Your task to perform on an android device: read, delete, or share a saved page in the chrome app Image 0: 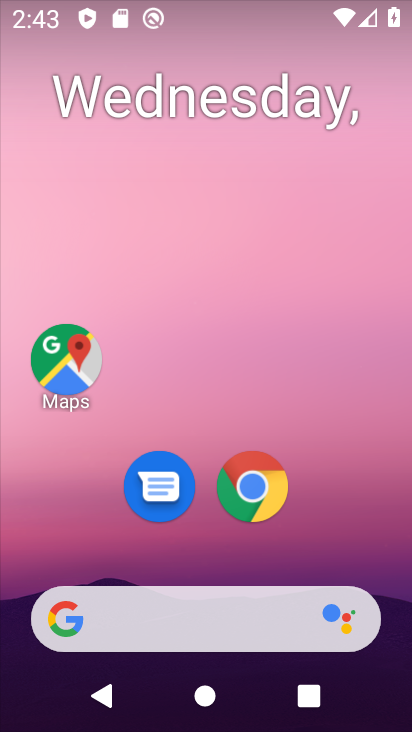
Step 0: click (257, 497)
Your task to perform on an android device: read, delete, or share a saved page in the chrome app Image 1: 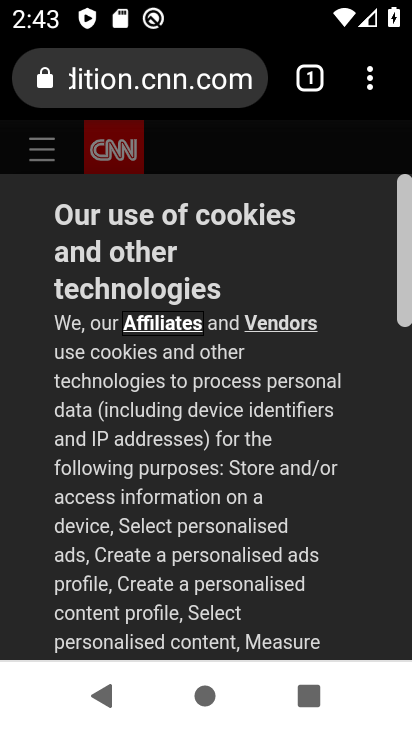
Step 1: drag from (364, 72) to (128, 510)
Your task to perform on an android device: read, delete, or share a saved page in the chrome app Image 2: 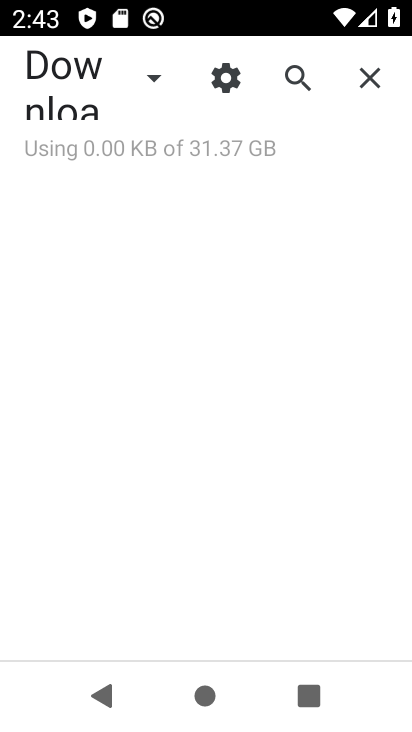
Step 2: click (141, 79)
Your task to perform on an android device: read, delete, or share a saved page in the chrome app Image 3: 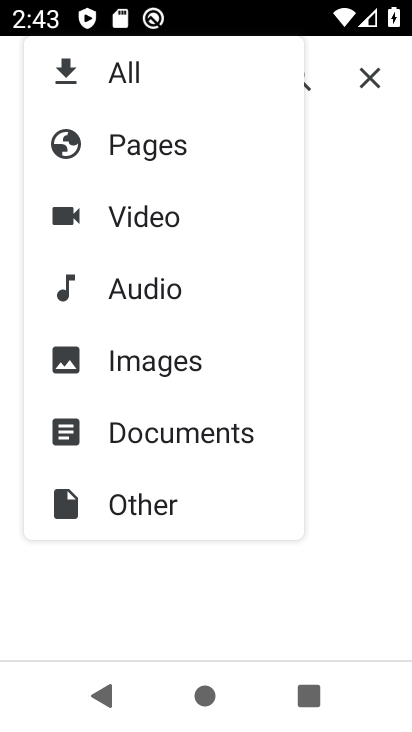
Step 3: click (152, 147)
Your task to perform on an android device: read, delete, or share a saved page in the chrome app Image 4: 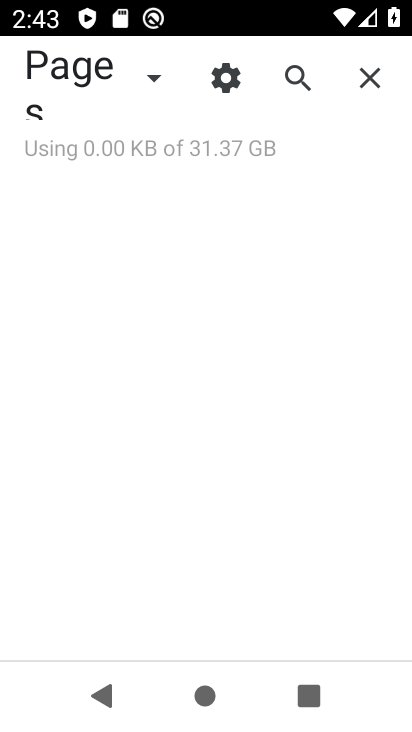
Step 4: task complete